Your task to perform on an android device: Open calendar and show me the first week of next month Image 0: 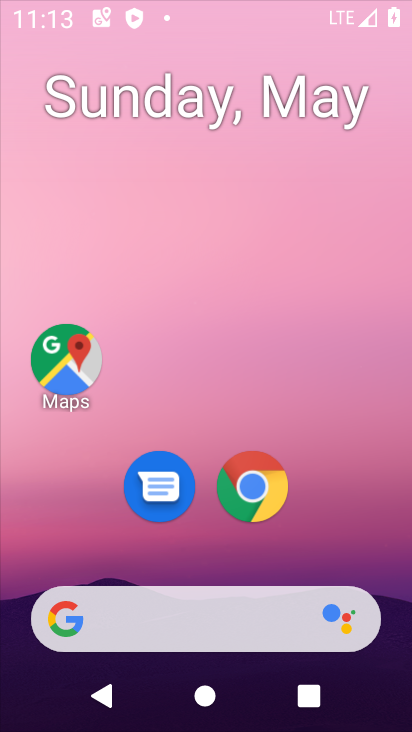
Step 0: drag from (254, 394) to (172, 53)
Your task to perform on an android device: Open calendar and show me the first week of next month Image 1: 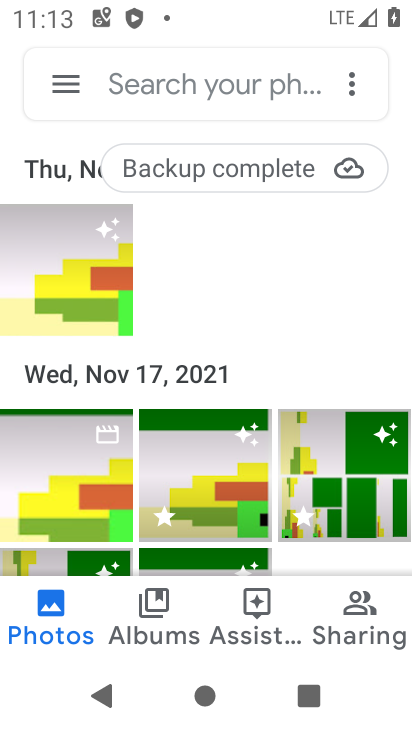
Step 1: press home button
Your task to perform on an android device: Open calendar and show me the first week of next month Image 2: 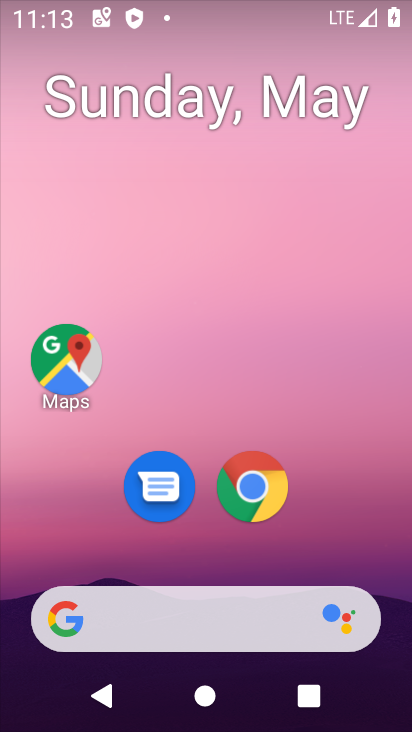
Step 2: drag from (201, 542) to (132, 207)
Your task to perform on an android device: Open calendar and show me the first week of next month Image 3: 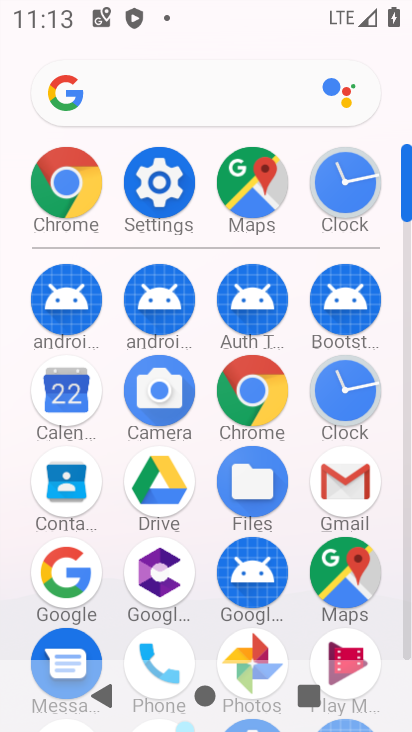
Step 3: click (66, 405)
Your task to perform on an android device: Open calendar and show me the first week of next month Image 4: 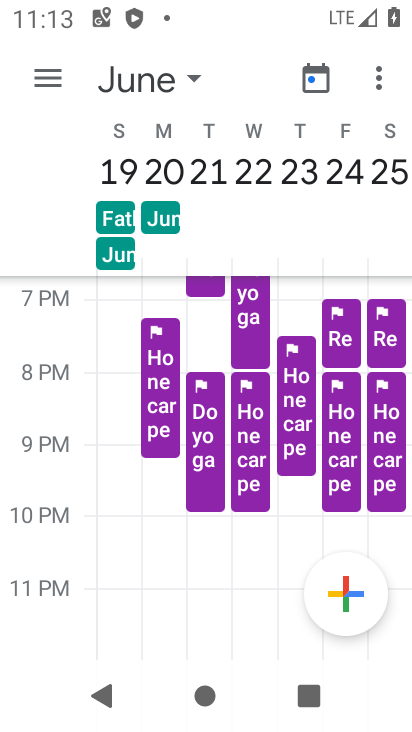
Step 4: click (154, 70)
Your task to perform on an android device: Open calendar and show me the first week of next month Image 5: 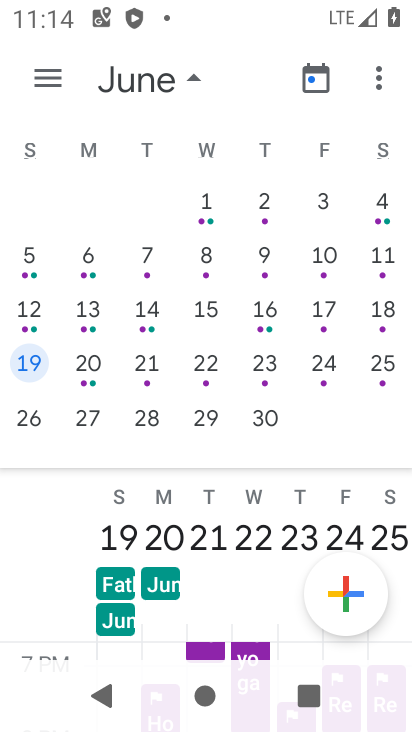
Step 5: click (30, 269)
Your task to perform on an android device: Open calendar and show me the first week of next month Image 6: 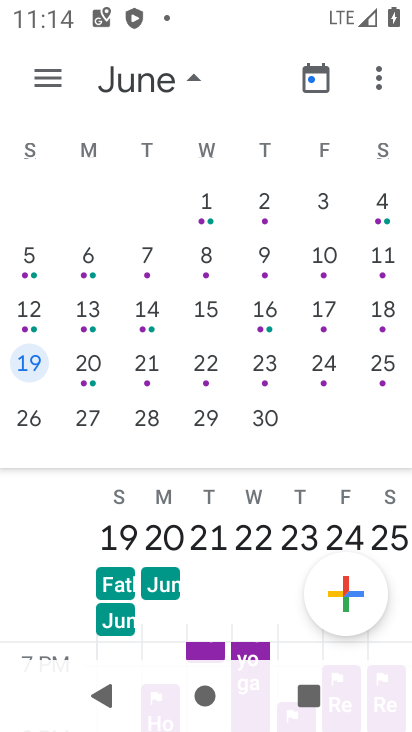
Step 6: click (29, 264)
Your task to perform on an android device: Open calendar and show me the first week of next month Image 7: 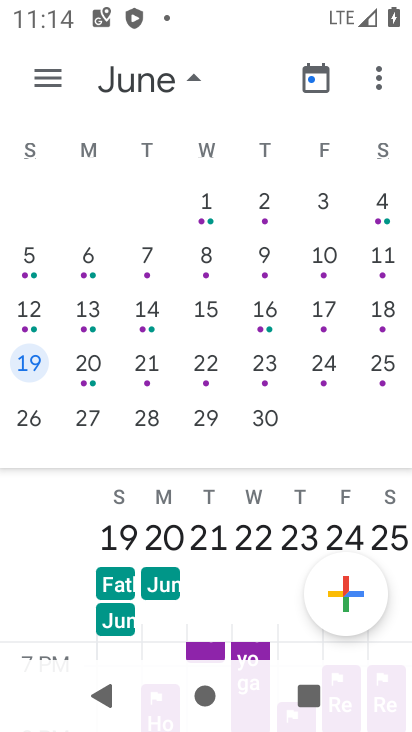
Step 7: click (29, 264)
Your task to perform on an android device: Open calendar and show me the first week of next month Image 8: 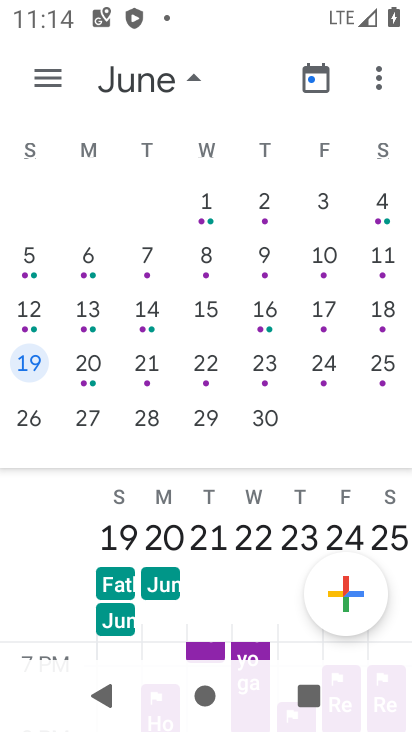
Step 8: click (31, 261)
Your task to perform on an android device: Open calendar and show me the first week of next month Image 9: 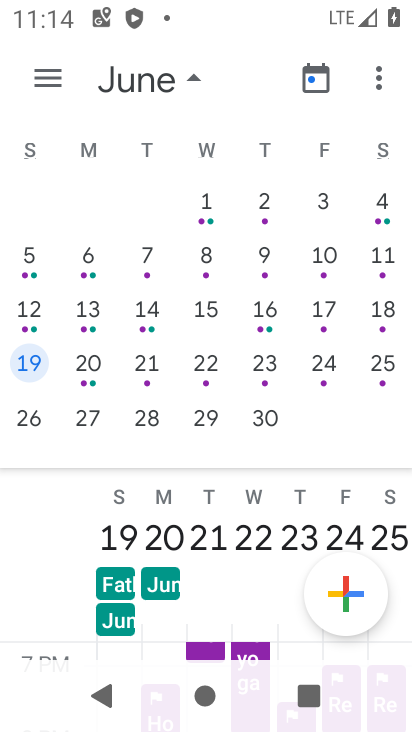
Step 9: click (35, 278)
Your task to perform on an android device: Open calendar and show me the first week of next month Image 10: 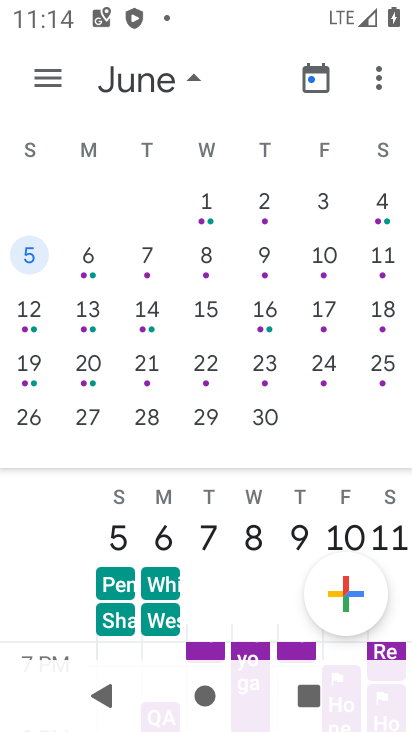
Step 10: task complete